Your task to perform on an android device: turn pop-ups off in chrome Image 0: 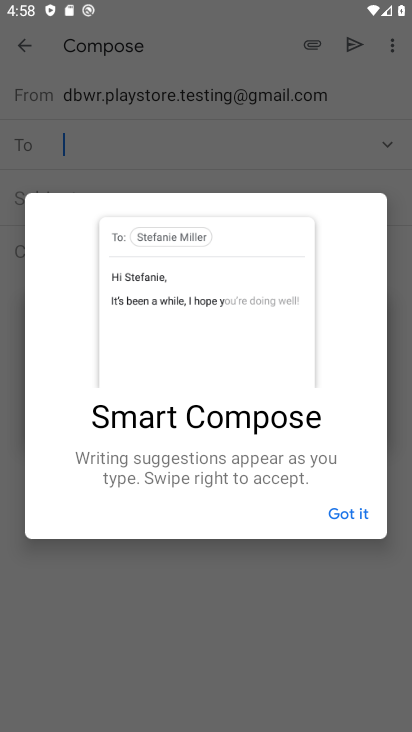
Step 0: press home button
Your task to perform on an android device: turn pop-ups off in chrome Image 1: 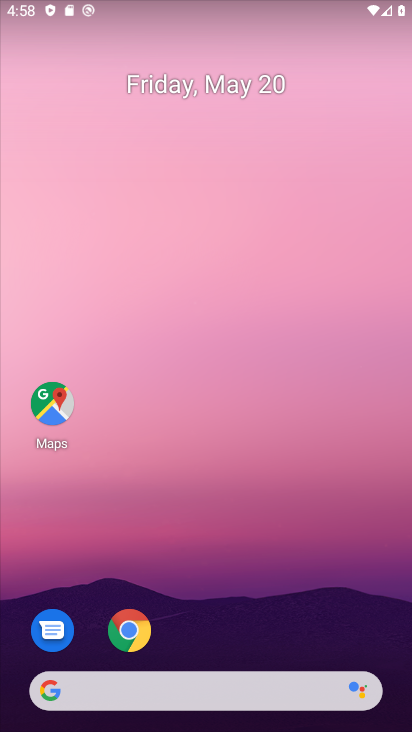
Step 1: click (139, 633)
Your task to perform on an android device: turn pop-ups off in chrome Image 2: 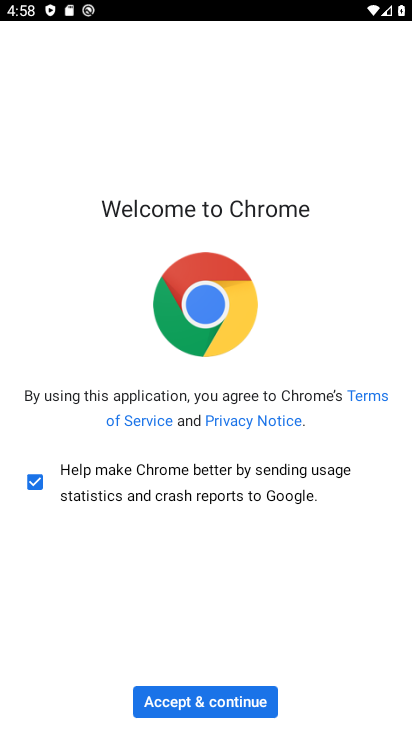
Step 2: click (226, 702)
Your task to perform on an android device: turn pop-ups off in chrome Image 3: 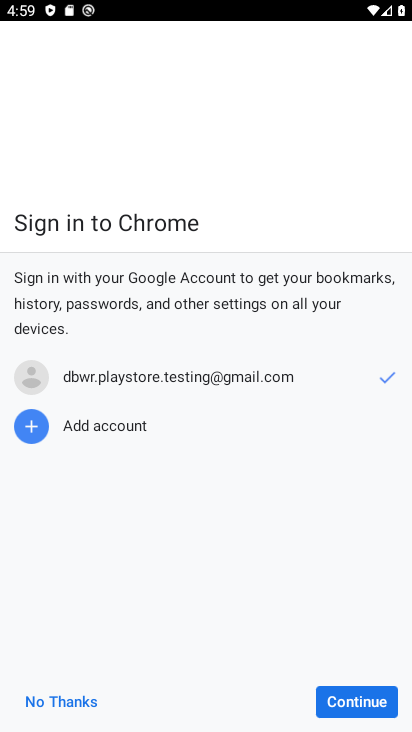
Step 3: click (372, 699)
Your task to perform on an android device: turn pop-ups off in chrome Image 4: 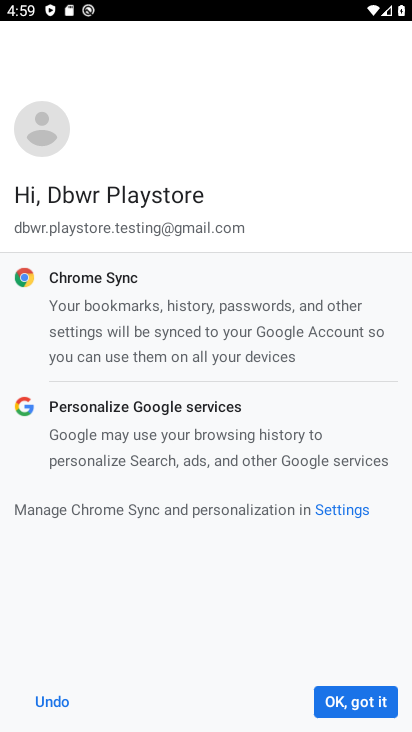
Step 4: click (372, 700)
Your task to perform on an android device: turn pop-ups off in chrome Image 5: 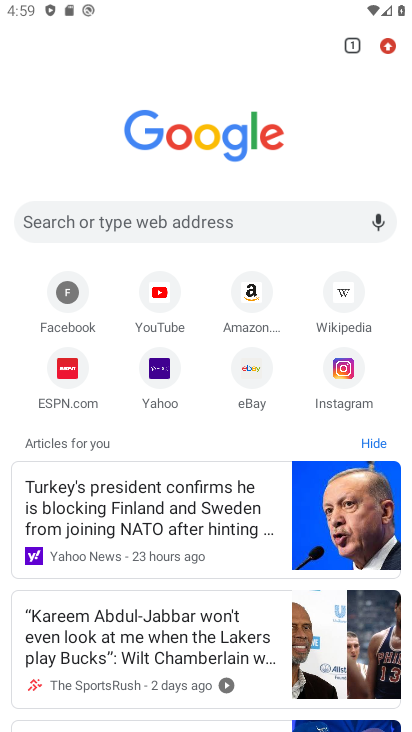
Step 5: click (386, 46)
Your task to perform on an android device: turn pop-ups off in chrome Image 6: 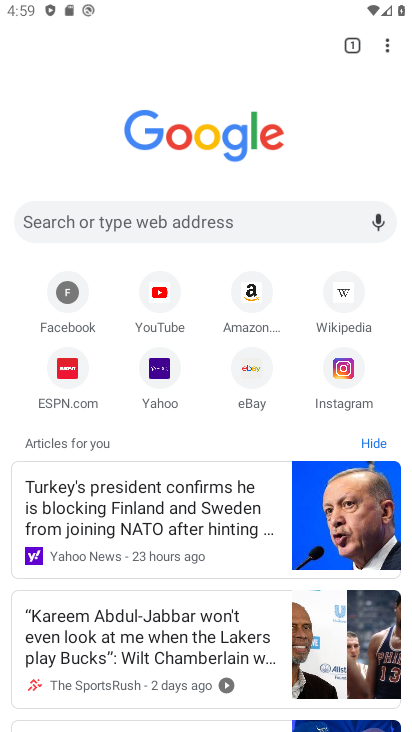
Step 6: click (386, 46)
Your task to perform on an android device: turn pop-ups off in chrome Image 7: 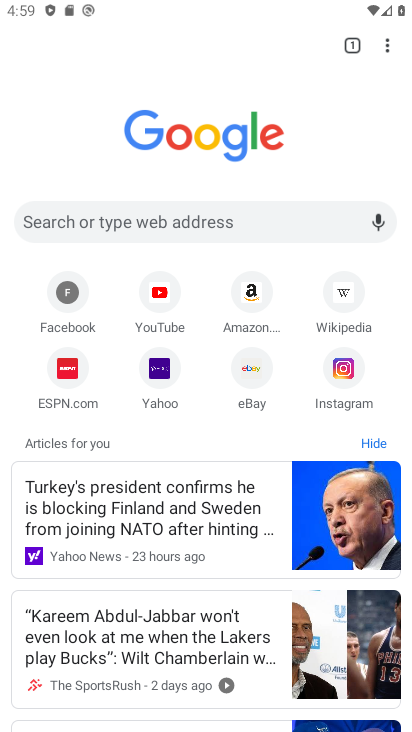
Step 7: click (386, 46)
Your task to perform on an android device: turn pop-ups off in chrome Image 8: 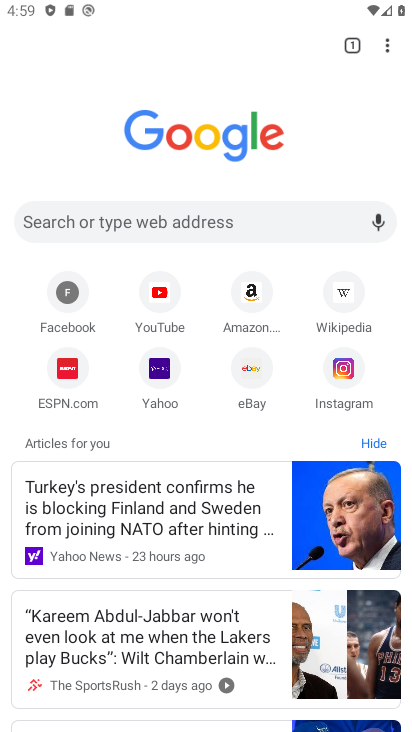
Step 8: click (386, 46)
Your task to perform on an android device: turn pop-ups off in chrome Image 9: 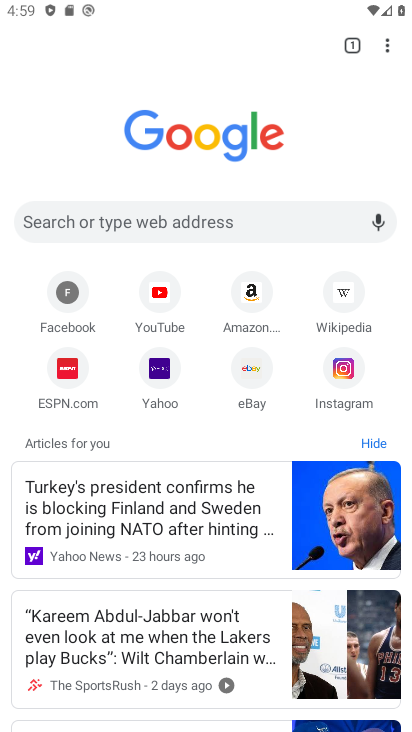
Step 9: click (386, 45)
Your task to perform on an android device: turn pop-ups off in chrome Image 10: 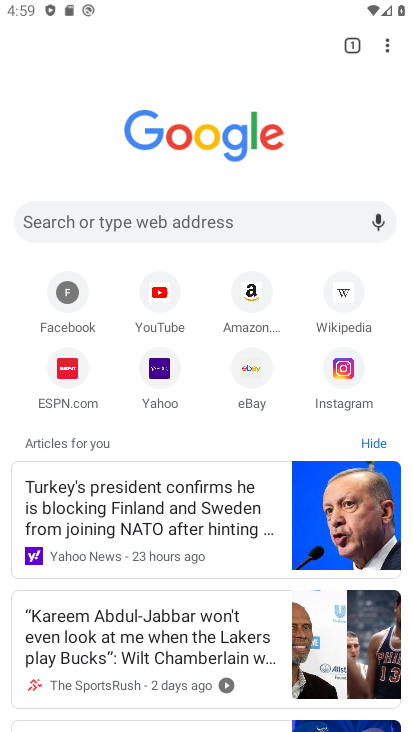
Step 10: drag from (386, 45) to (268, 427)
Your task to perform on an android device: turn pop-ups off in chrome Image 11: 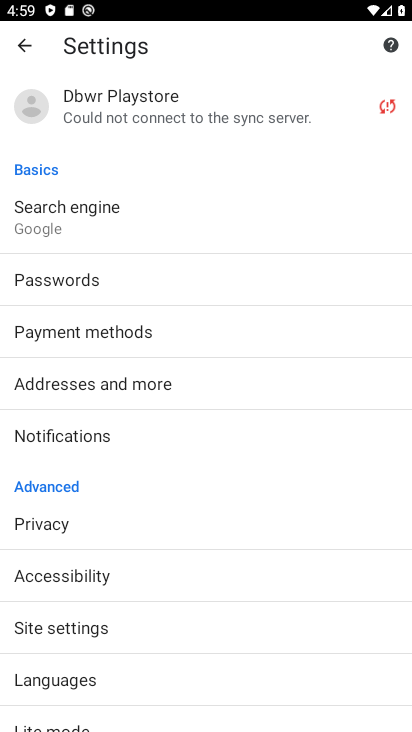
Step 11: click (134, 618)
Your task to perform on an android device: turn pop-ups off in chrome Image 12: 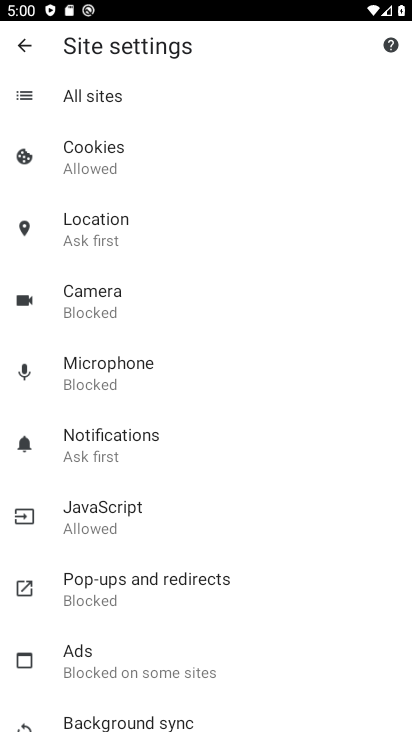
Step 12: click (151, 591)
Your task to perform on an android device: turn pop-ups off in chrome Image 13: 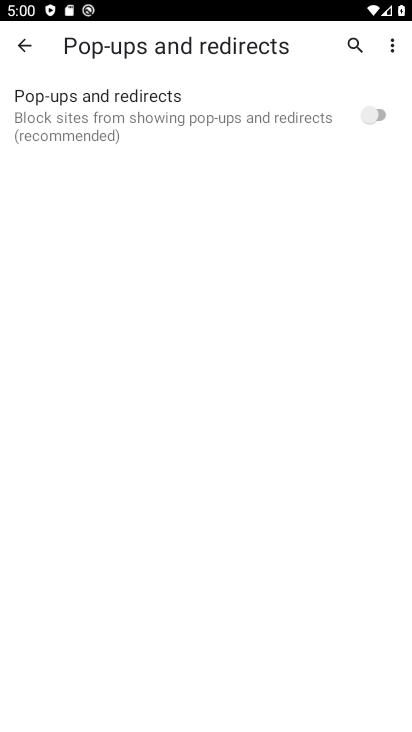
Step 13: task complete